Your task to perform on an android device: turn on translation in the chrome app Image 0: 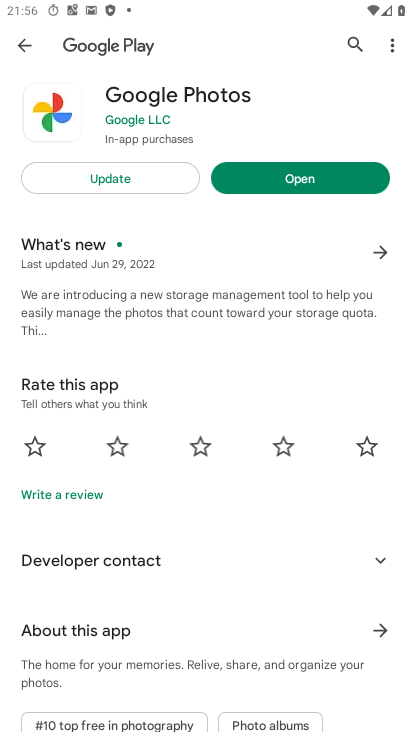
Step 0: click (36, 705)
Your task to perform on an android device: turn on translation in the chrome app Image 1: 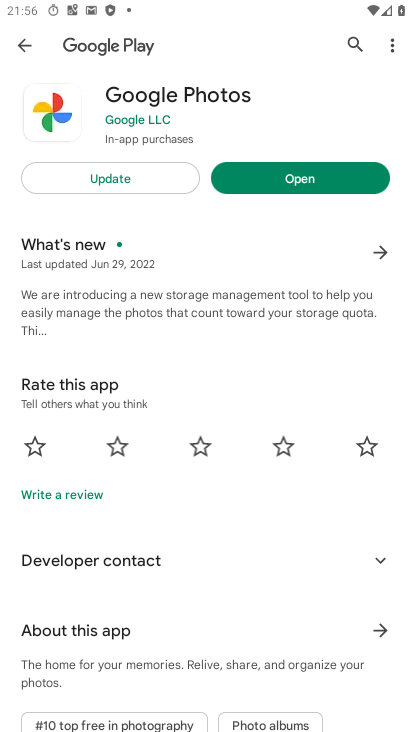
Step 1: press home button
Your task to perform on an android device: turn on translation in the chrome app Image 2: 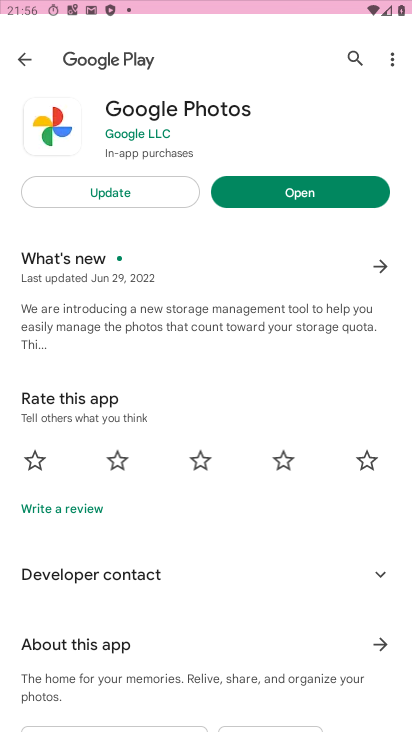
Step 2: press home button
Your task to perform on an android device: turn on translation in the chrome app Image 3: 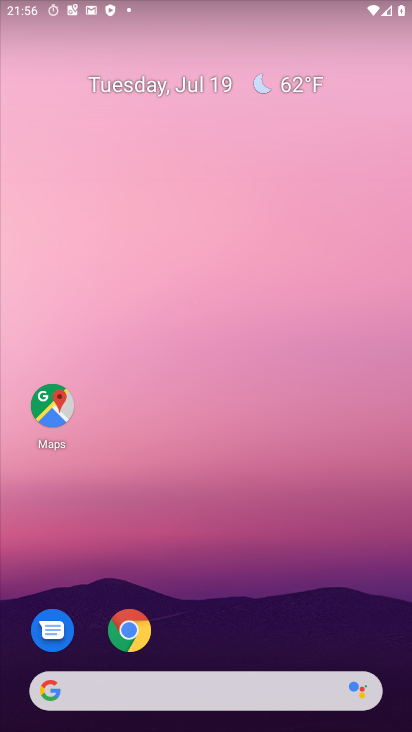
Step 3: click (126, 639)
Your task to perform on an android device: turn on translation in the chrome app Image 4: 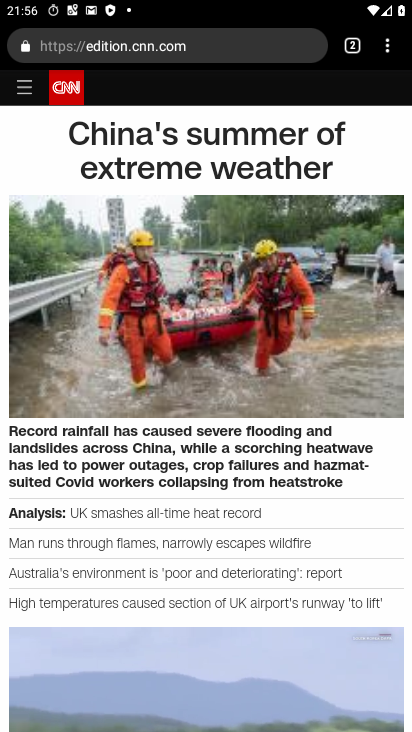
Step 4: click (393, 47)
Your task to perform on an android device: turn on translation in the chrome app Image 5: 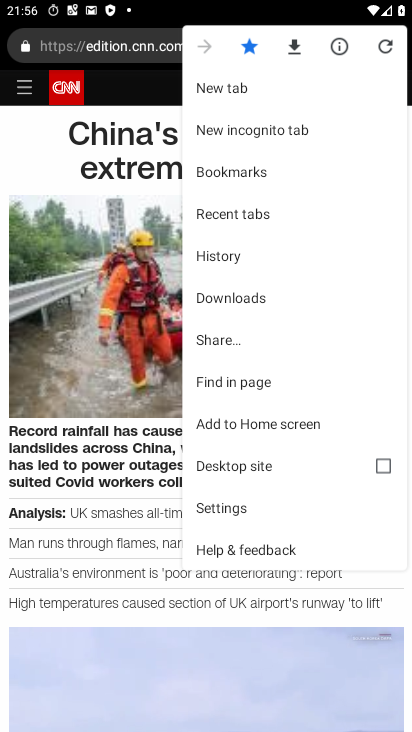
Step 5: click (218, 512)
Your task to perform on an android device: turn on translation in the chrome app Image 6: 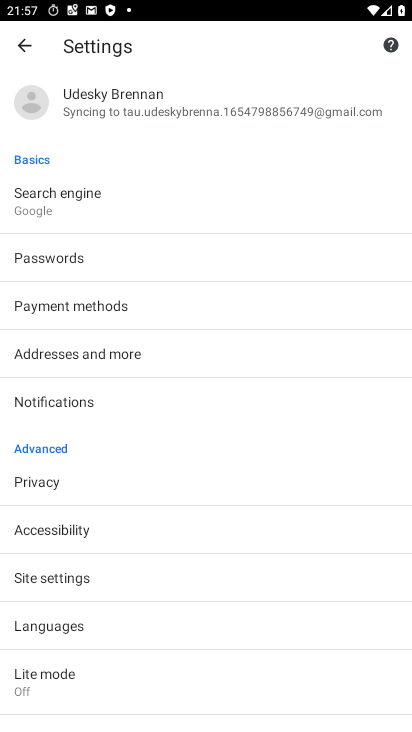
Step 6: click (45, 622)
Your task to perform on an android device: turn on translation in the chrome app Image 7: 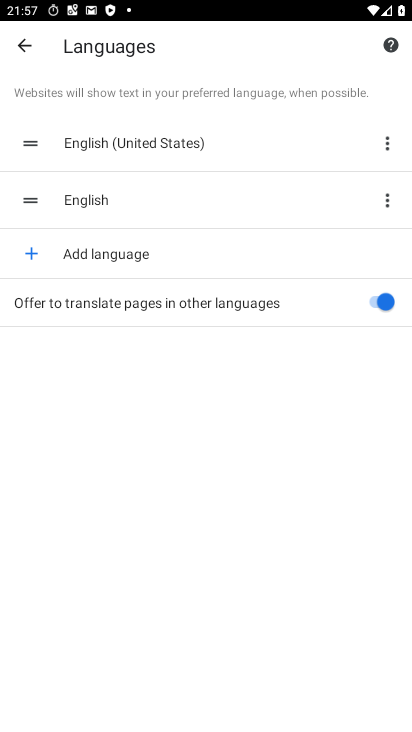
Step 7: task complete